Your task to perform on an android device: check out phone information Image 0: 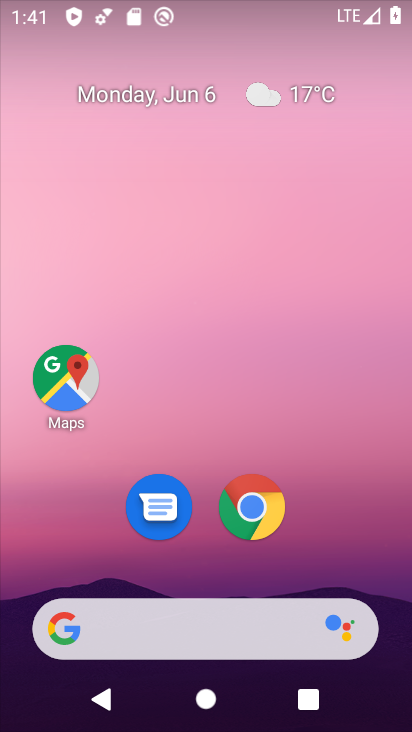
Step 0: drag from (405, 589) to (245, 166)
Your task to perform on an android device: check out phone information Image 1: 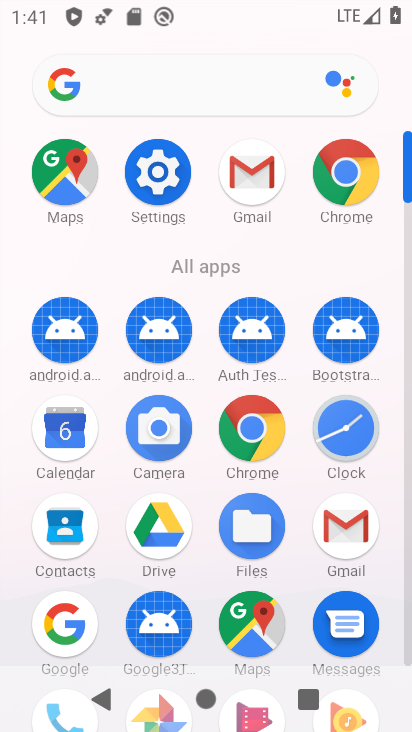
Step 1: click (166, 199)
Your task to perform on an android device: check out phone information Image 2: 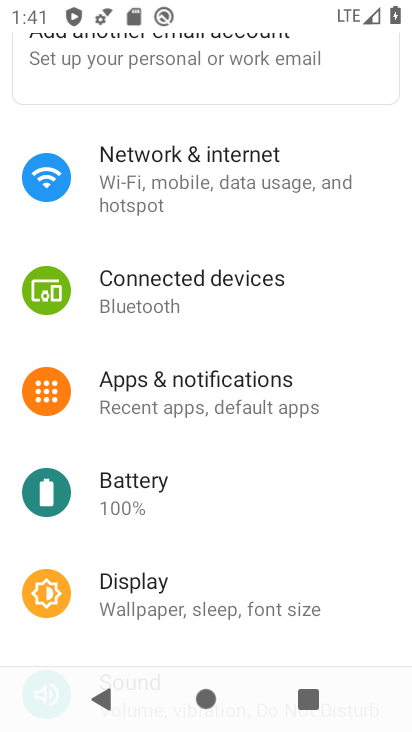
Step 2: drag from (231, 569) to (250, 29)
Your task to perform on an android device: check out phone information Image 3: 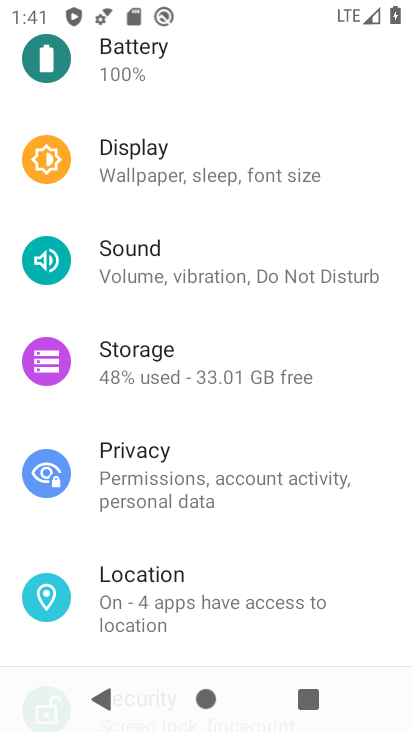
Step 3: drag from (239, 639) to (198, 69)
Your task to perform on an android device: check out phone information Image 4: 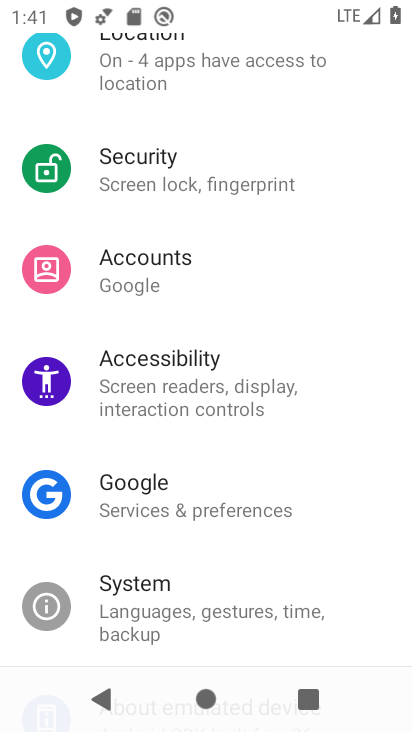
Step 4: drag from (192, 617) to (205, 150)
Your task to perform on an android device: check out phone information Image 5: 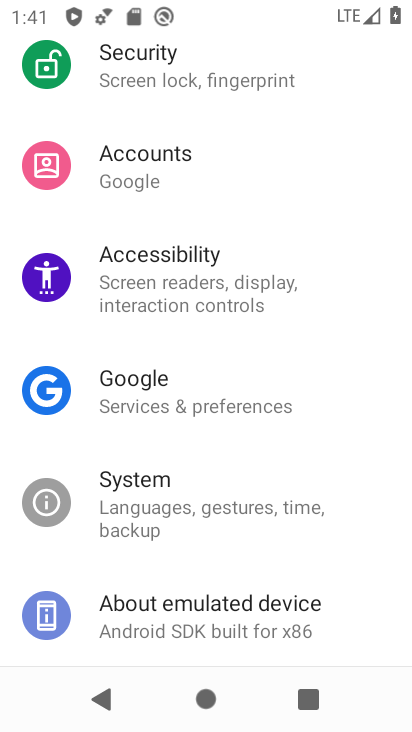
Step 5: click (231, 605)
Your task to perform on an android device: check out phone information Image 6: 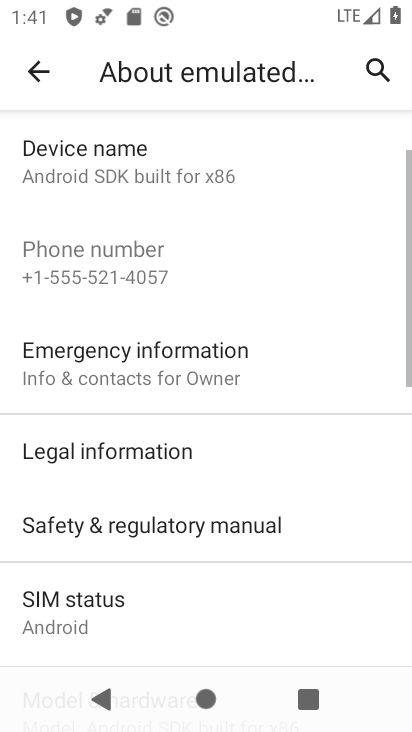
Step 6: task complete